Your task to perform on an android device: Go to wifi settings Image 0: 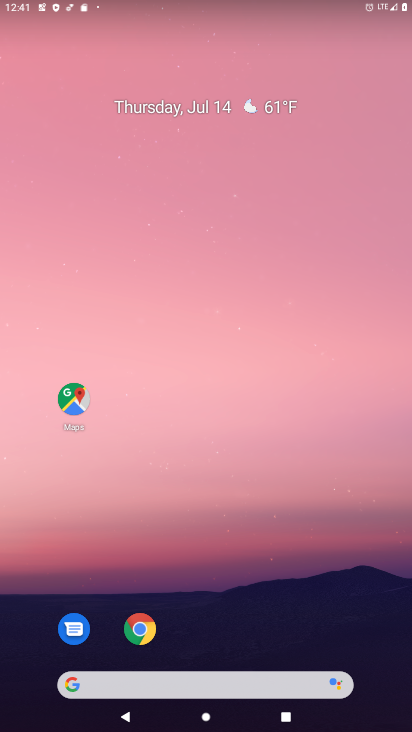
Step 0: drag from (247, 578) to (203, 158)
Your task to perform on an android device: Go to wifi settings Image 1: 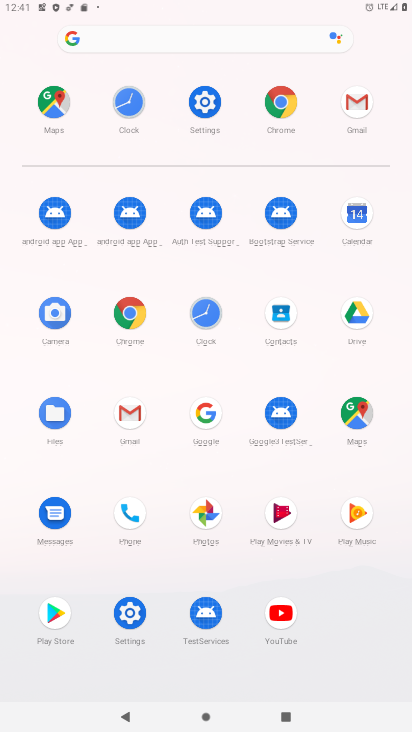
Step 1: click (205, 102)
Your task to perform on an android device: Go to wifi settings Image 2: 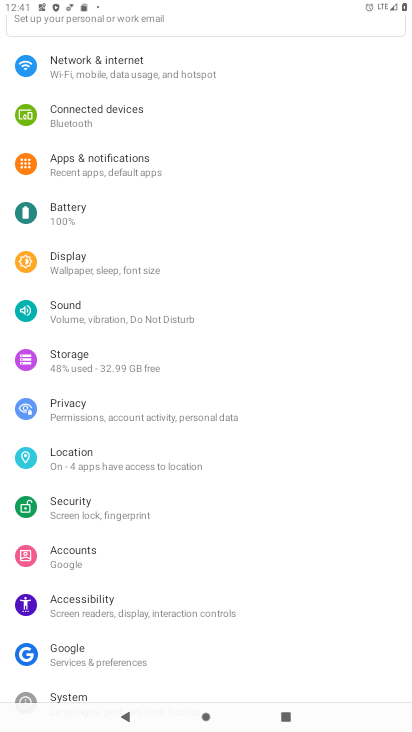
Step 2: click (116, 57)
Your task to perform on an android device: Go to wifi settings Image 3: 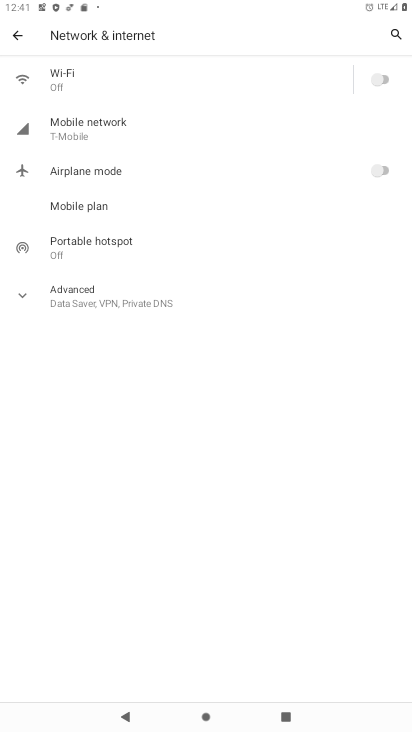
Step 3: click (157, 73)
Your task to perform on an android device: Go to wifi settings Image 4: 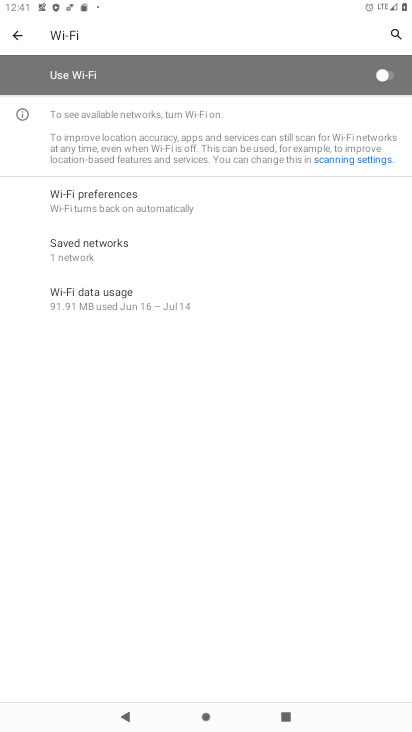
Step 4: task complete